Your task to perform on an android device: Open Google Chrome and open the bookmarks view Image 0: 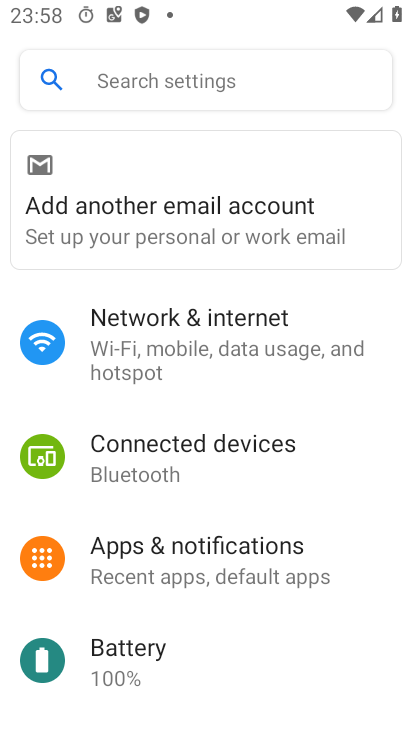
Step 0: press home button
Your task to perform on an android device: Open Google Chrome and open the bookmarks view Image 1: 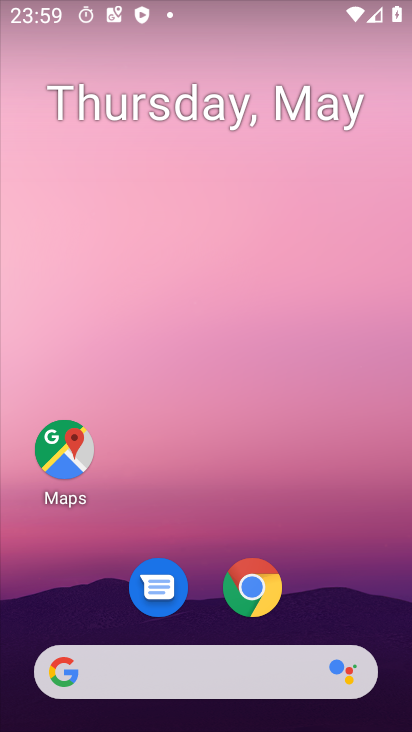
Step 1: click (253, 589)
Your task to perform on an android device: Open Google Chrome and open the bookmarks view Image 2: 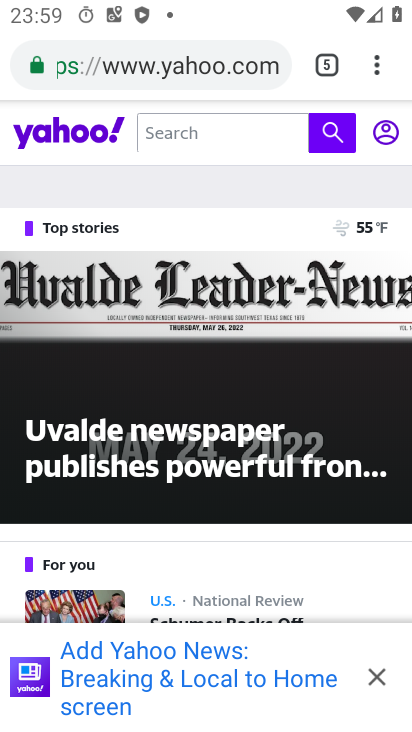
Step 2: click (374, 60)
Your task to perform on an android device: Open Google Chrome and open the bookmarks view Image 3: 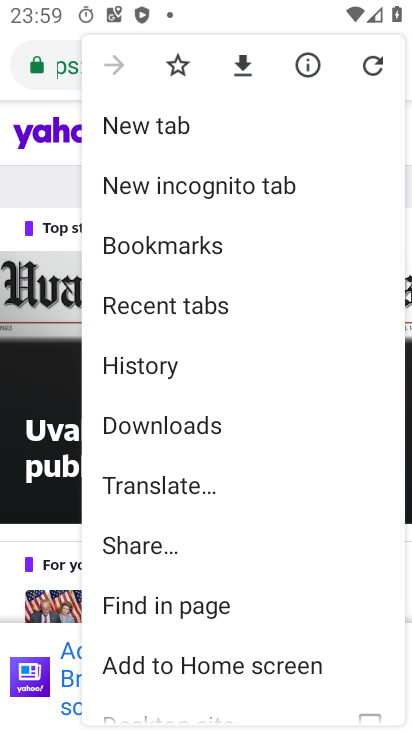
Step 3: click (175, 252)
Your task to perform on an android device: Open Google Chrome and open the bookmarks view Image 4: 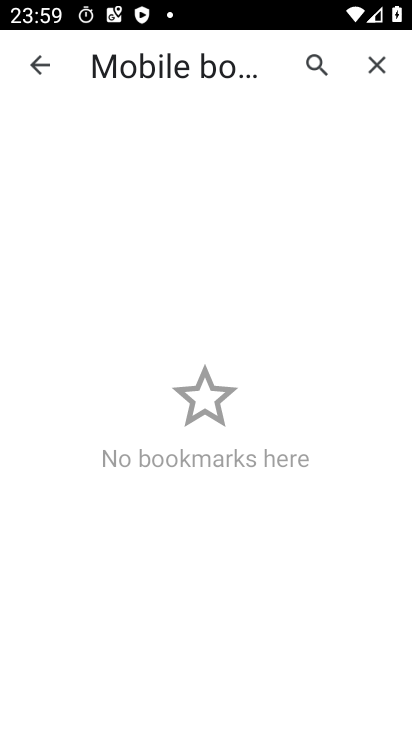
Step 4: task complete